Your task to perform on an android device: show emergency info Image 0: 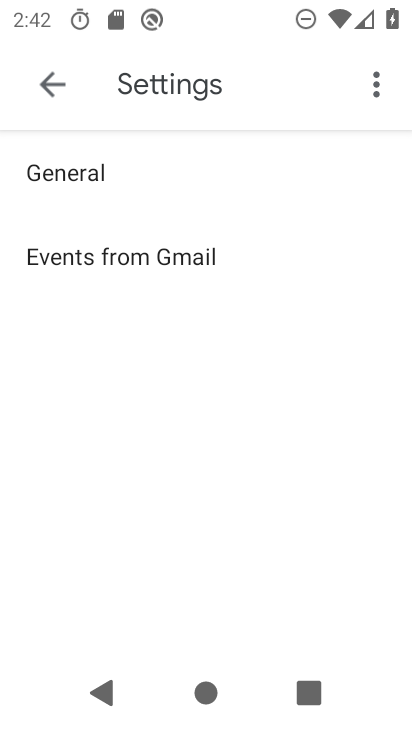
Step 0: drag from (216, 547) to (214, 255)
Your task to perform on an android device: show emergency info Image 1: 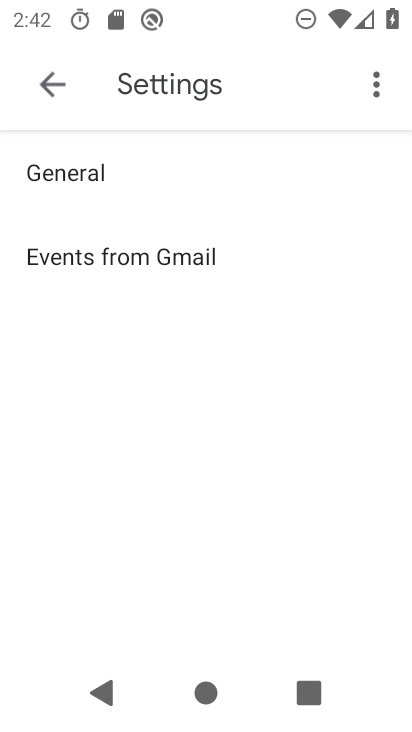
Step 1: press home button
Your task to perform on an android device: show emergency info Image 2: 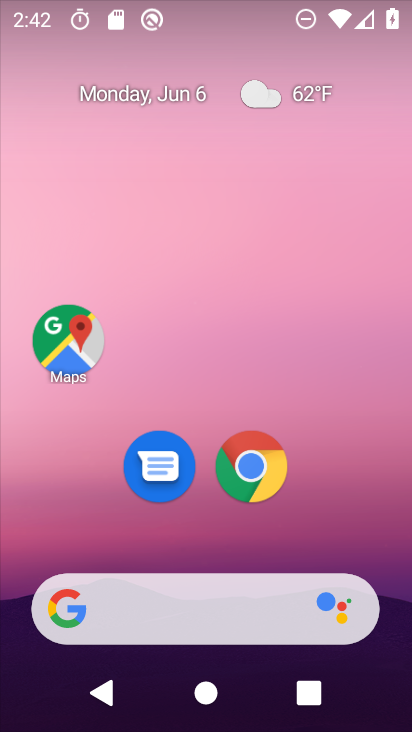
Step 2: drag from (191, 545) to (197, 220)
Your task to perform on an android device: show emergency info Image 3: 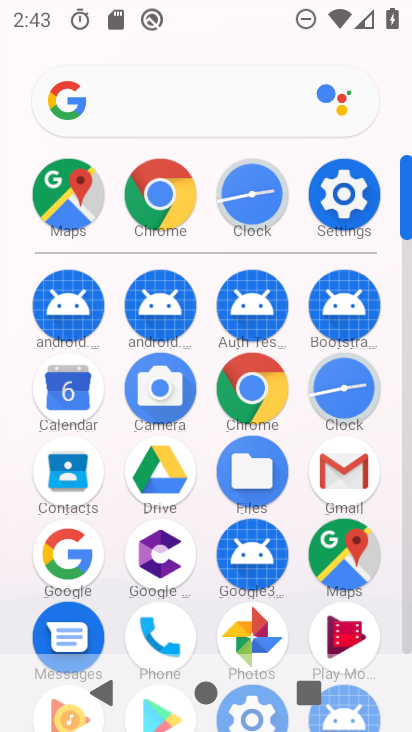
Step 3: click (341, 196)
Your task to perform on an android device: show emergency info Image 4: 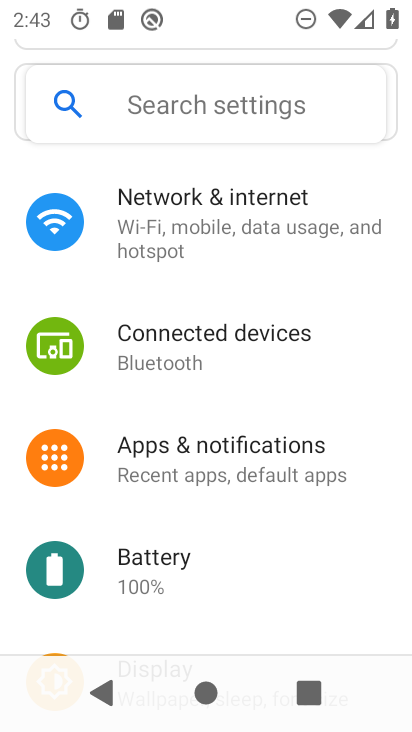
Step 4: drag from (262, 563) to (270, 335)
Your task to perform on an android device: show emergency info Image 5: 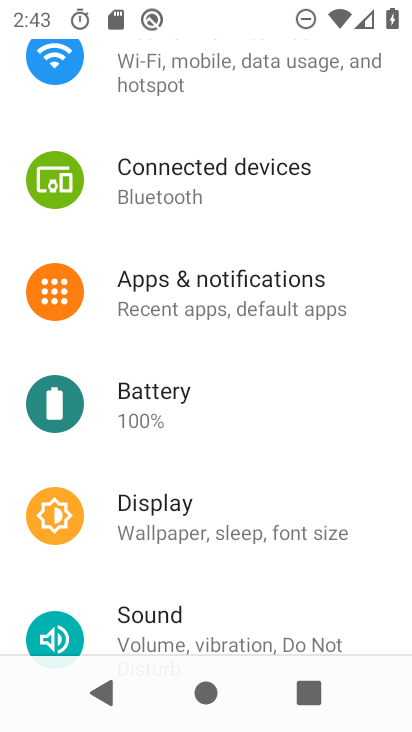
Step 5: drag from (218, 547) to (236, 263)
Your task to perform on an android device: show emergency info Image 6: 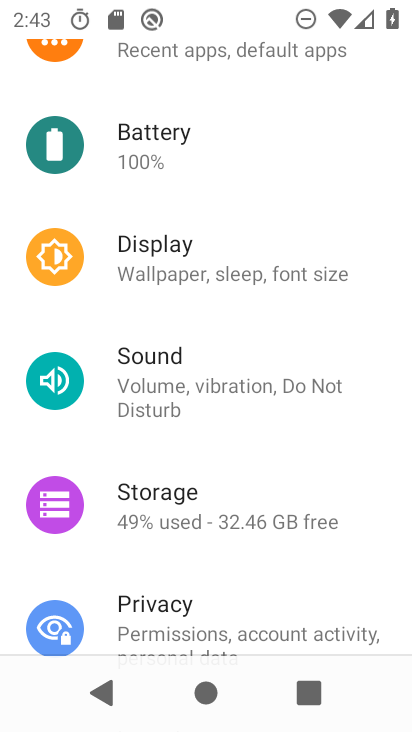
Step 6: drag from (216, 551) to (243, 168)
Your task to perform on an android device: show emergency info Image 7: 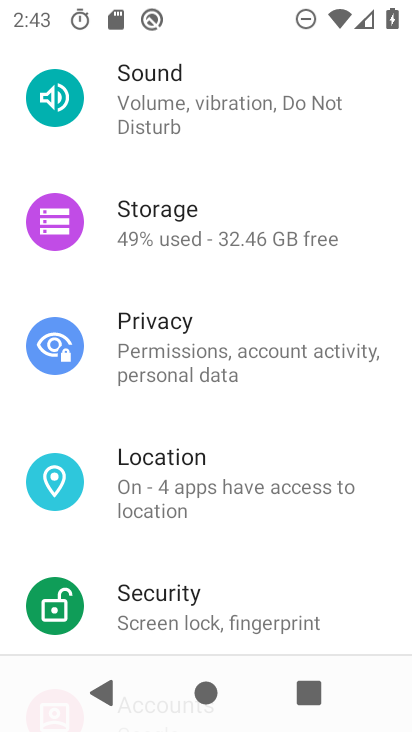
Step 7: drag from (210, 505) to (229, 164)
Your task to perform on an android device: show emergency info Image 8: 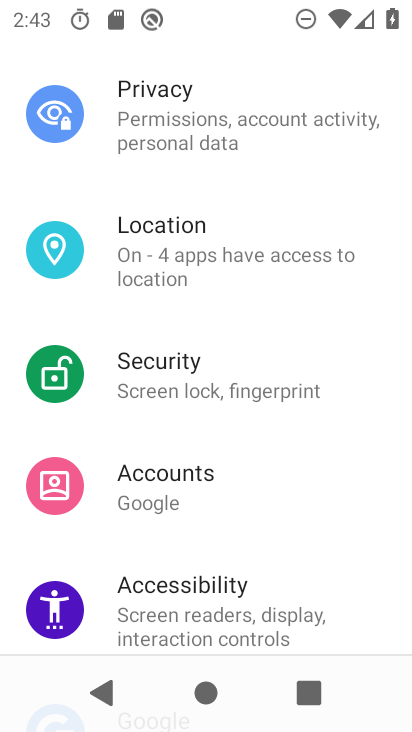
Step 8: drag from (212, 553) to (281, 136)
Your task to perform on an android device: show emergency info Image 9: 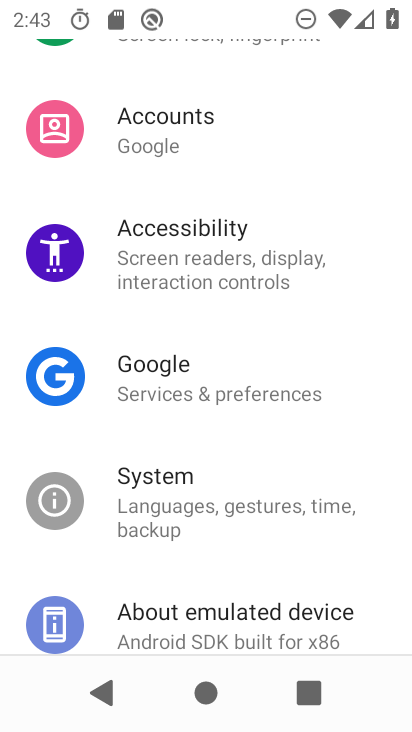
Step 9: click (191, 617)
Your task to perform on an android device: show emergency info Image 10: 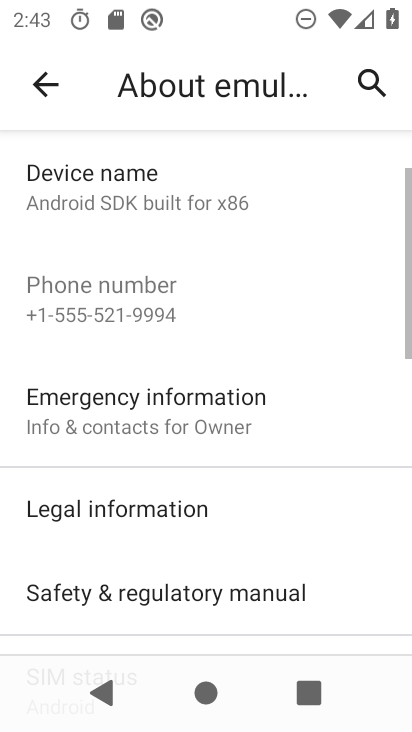
Step 10: drag from (178, 512) to (214, 89)
Your task to perform on an android device: show emergency info Image 11: 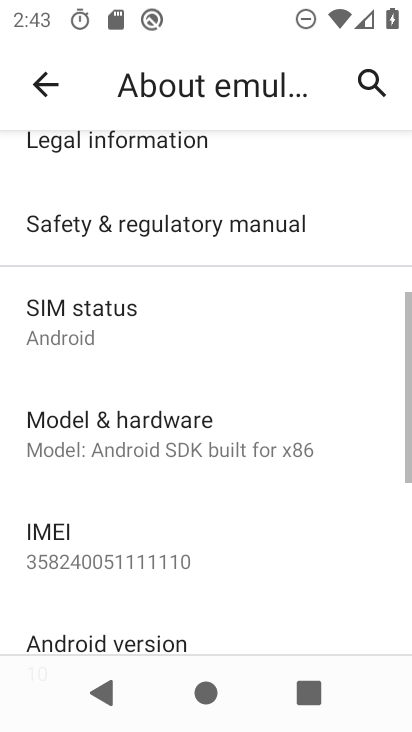
Step 11: drag from (241, 497) to (267, 197)
Your task to perform on an android device: show emergency info Image 12: 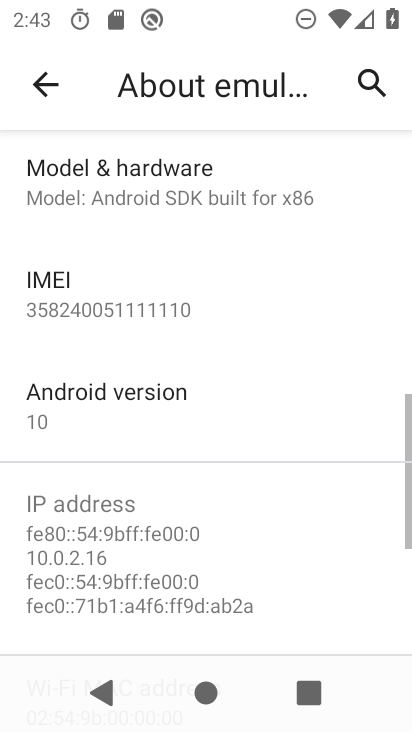
Step 12: click (91, 430)
Your task to perform on an android device: show emergency info Image 13: 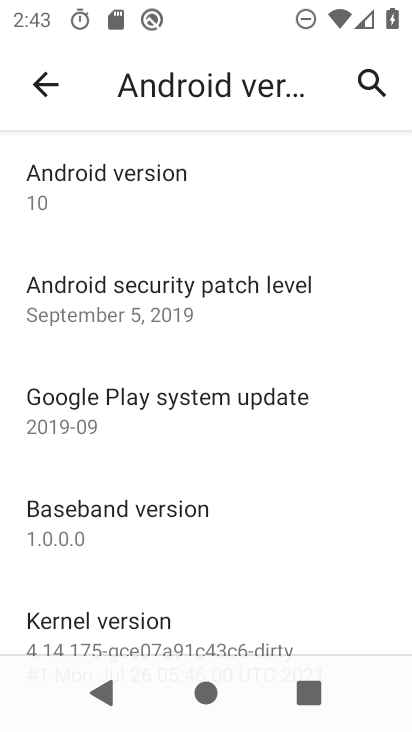
Step 13: task complete